Your task to perform on an android device: check battery use Image 0: 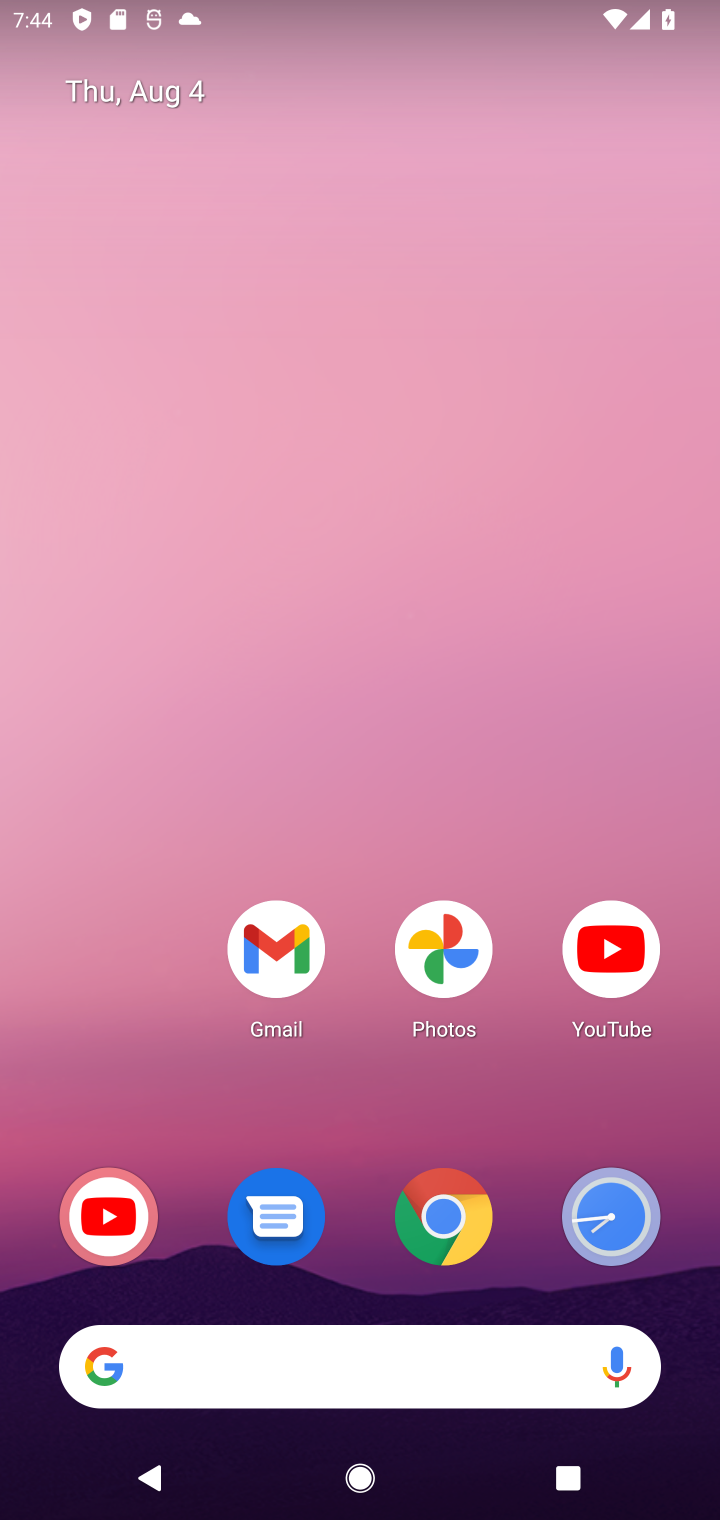
Step 0: drag from (356, 1305) to (358, 3)
Your task to perform on an android device: check battery use Image 1: 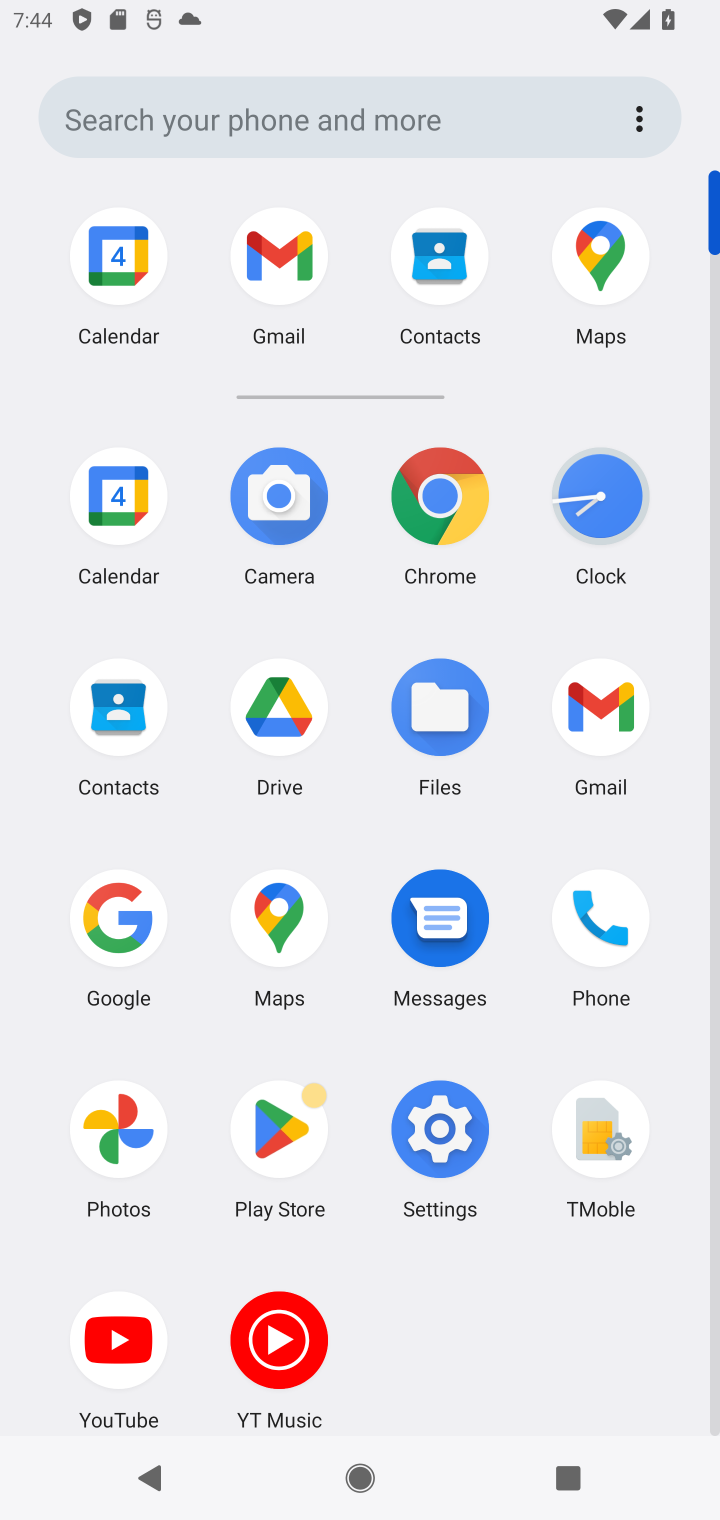
Step 1: click (442, 1145)
Your task to perform on an android device: check battery use Image 2: 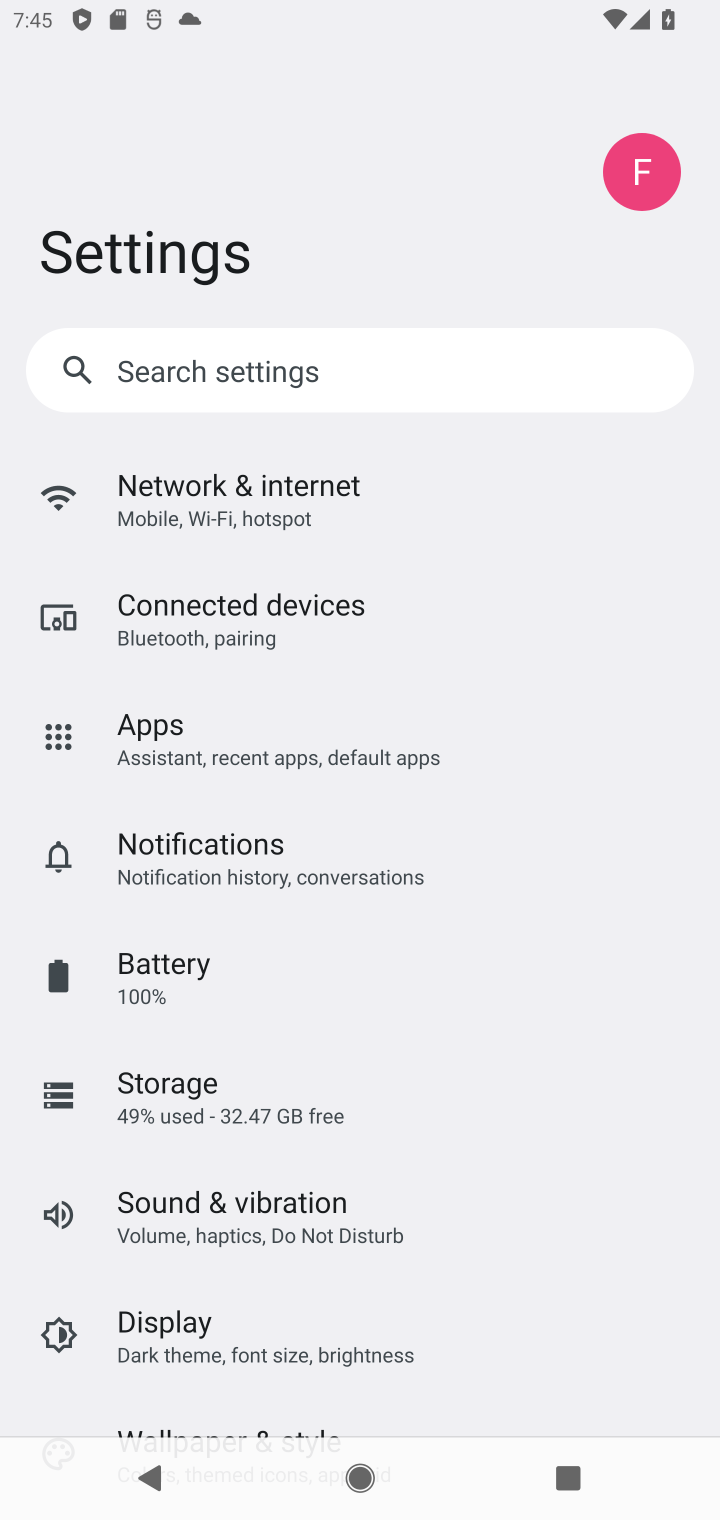
Step 2: click (164, 978)
Your task to perform on an android device: check battery use Image 3: 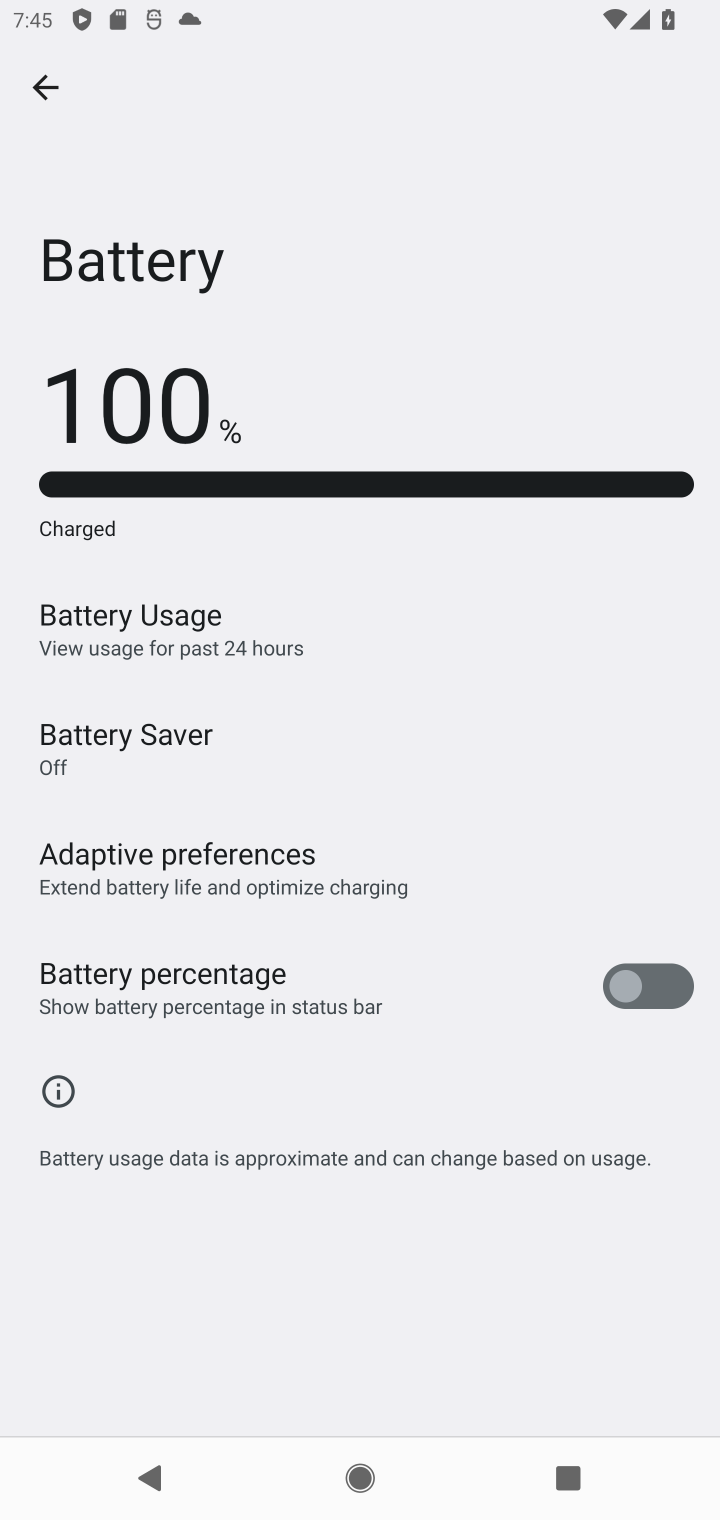
Step 3: click (148, 635)
Your task to perform on an android device: check battery use Image 4: 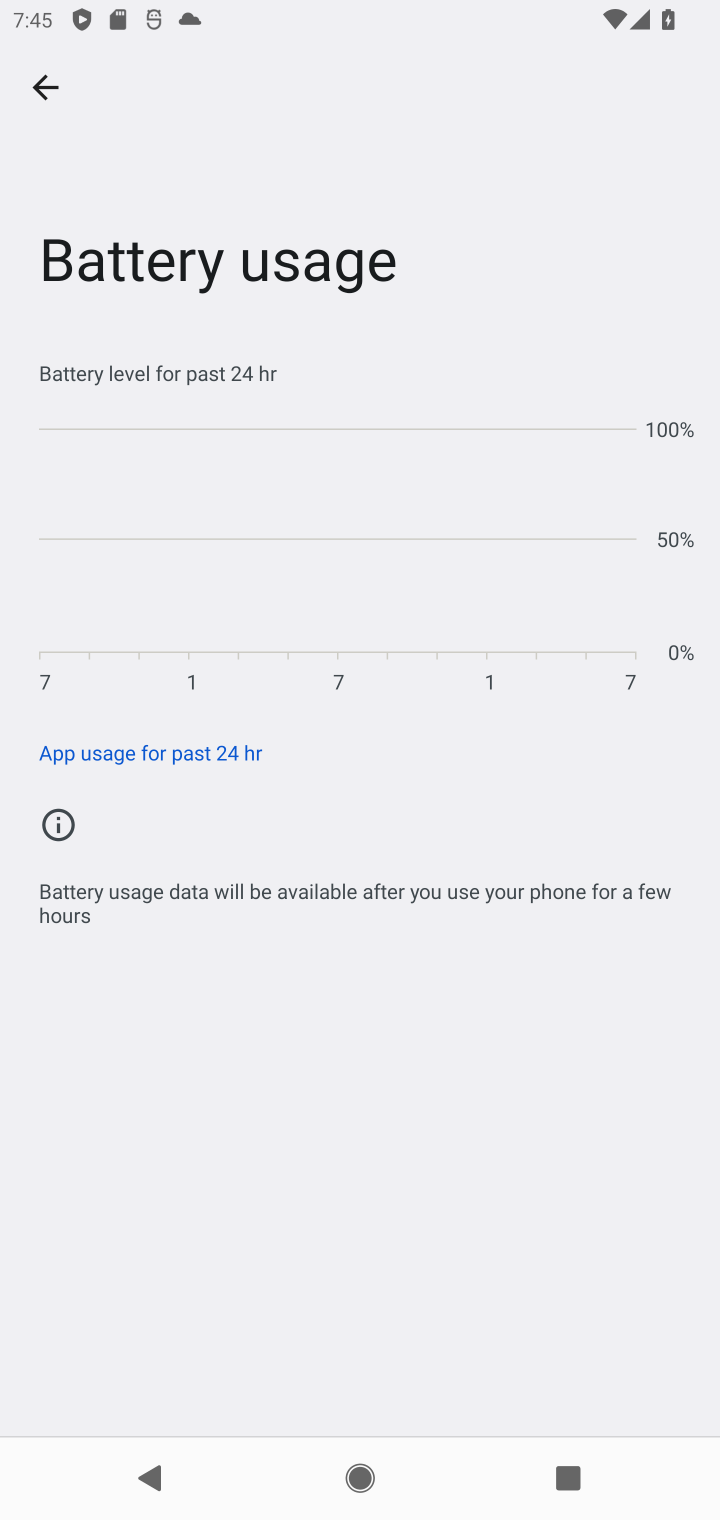
Step 4: task complete